Your task to perform on an android device: see sites visited before in the chrome app Image 0: 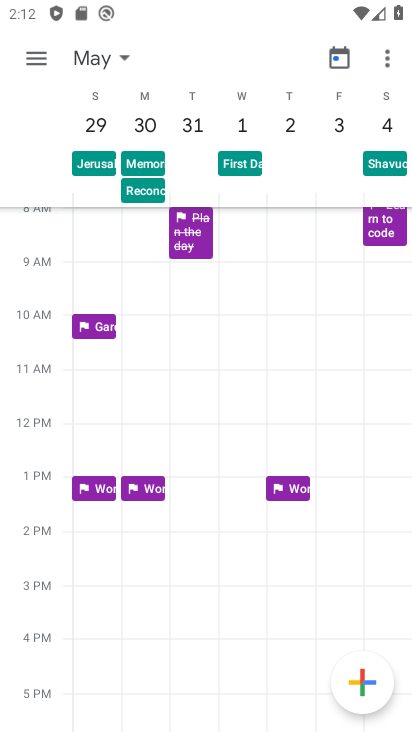
Step 0: press home button
Your task to perform on an android device: see sites visited before in the chrome app Image 1: 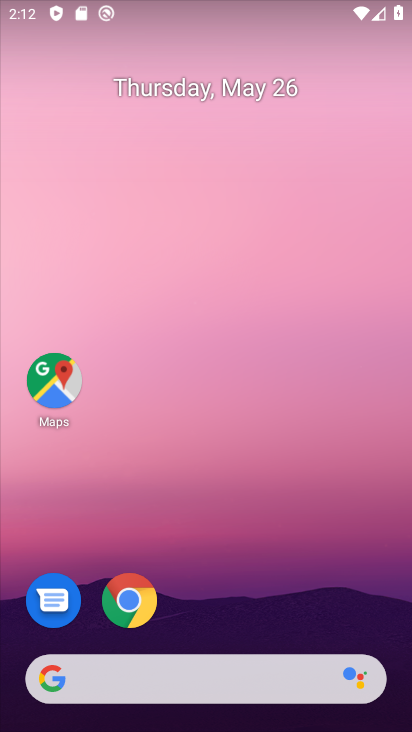
Step 1: click (137, 605)
Your task to perform on an android device: see sites visited before in the chrome app Image 2: 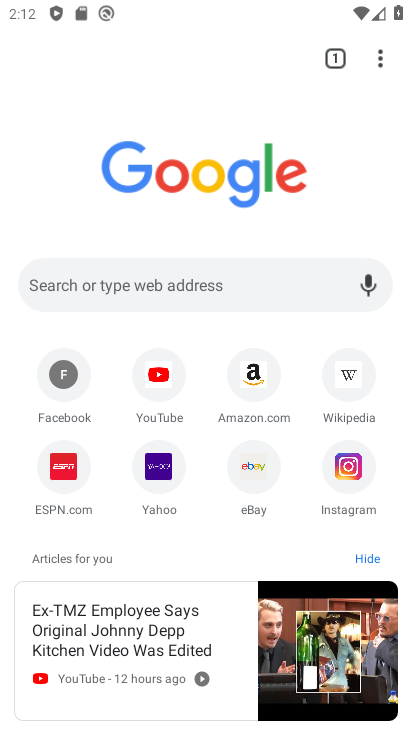
Step 2: click (386, 60)
Your task to perform on an android device: see sites visited before in the chrome app Image 3: 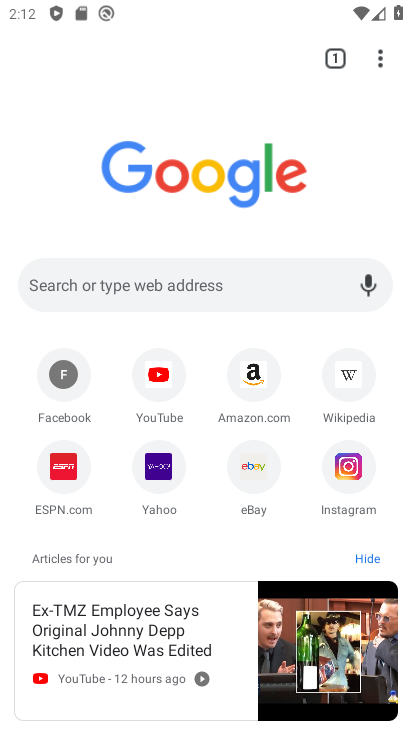
Step 3: click (392, 70)
Your task to perform on an android device: see sites visited before in the chrome app Image 4: 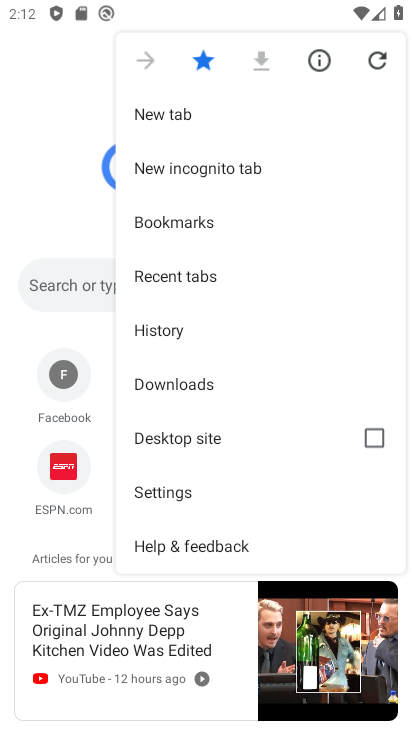
Step 4: click (246, 285)
Your task to perform on an android device: see sites visited before in the chrome app Image 5: 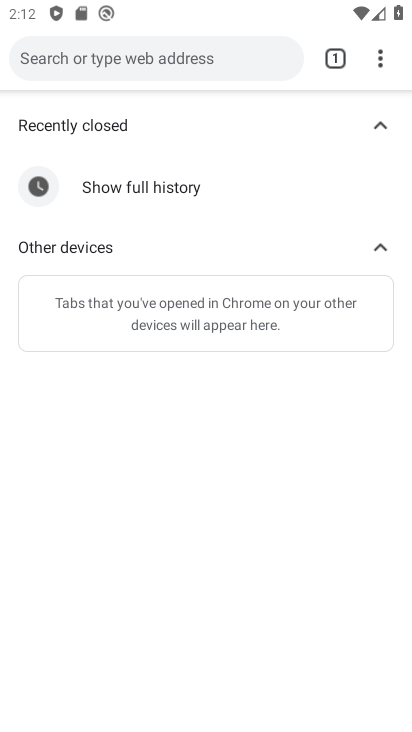
Step 5: click (142, 177)
Your task to perform on an android device: see sites visited before in the chrome app Image 6: 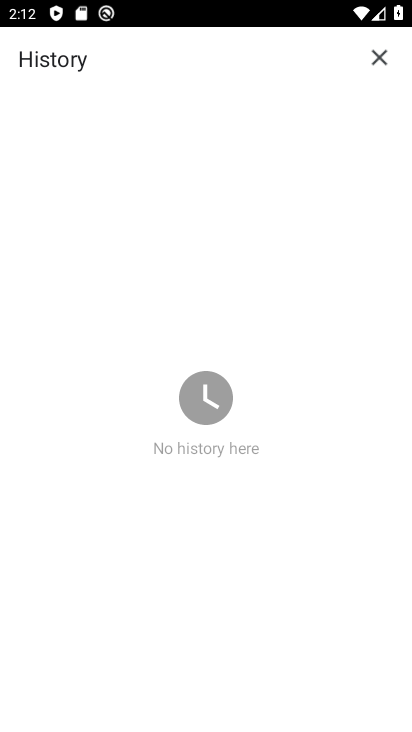
Step 6: task complete